Your task to perform on an android device: Go to Google maps Image 0: 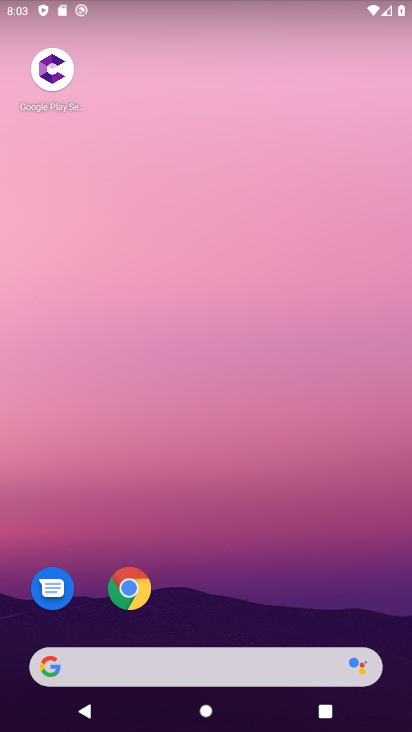
Step 0: press home button
Your task to perform on an android device: Go to Google maps Image 1: 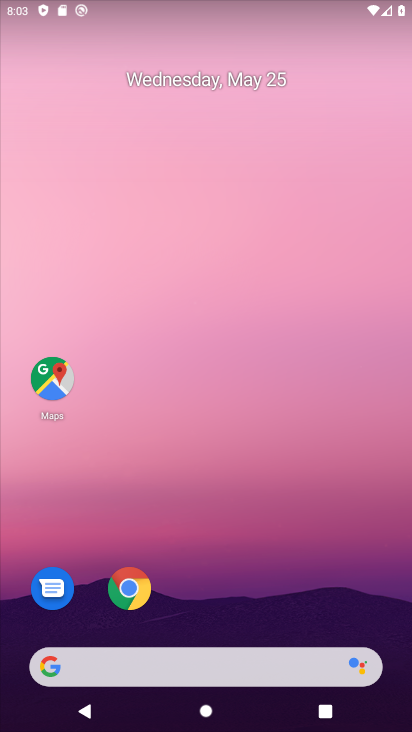
Step 1: click (60, 370)
Your task to perform on an android device: Go to Google maps Image 2: 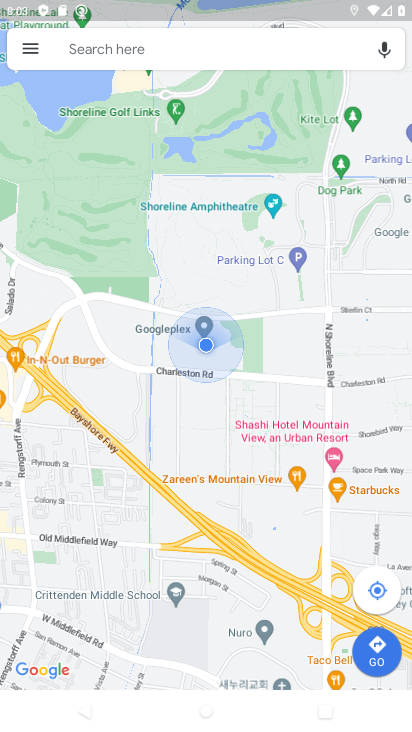
Step 2: task complete